Your task to perform on an android device: Go to Google maps Image 0: 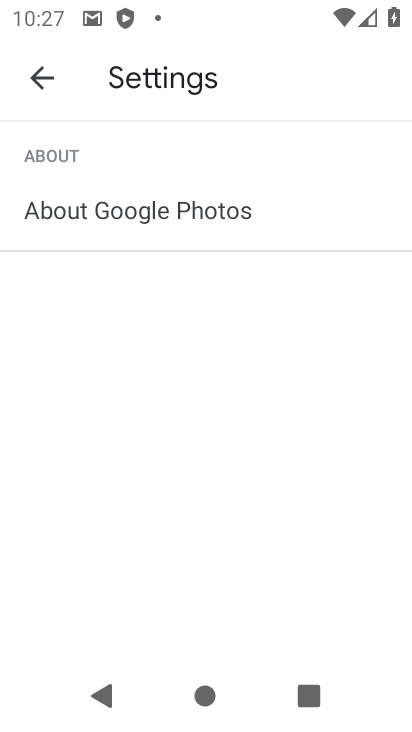
Step 0: press back button
Your task to perform on an android device: Go to Google maps Image 1: 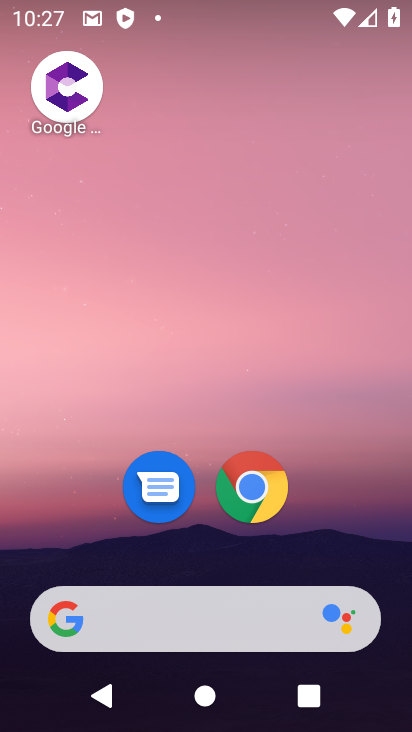
Step 1: drag from (204, 542) to (270, 36)
Your task to perform on an android device: Go to Google maps Image 2: 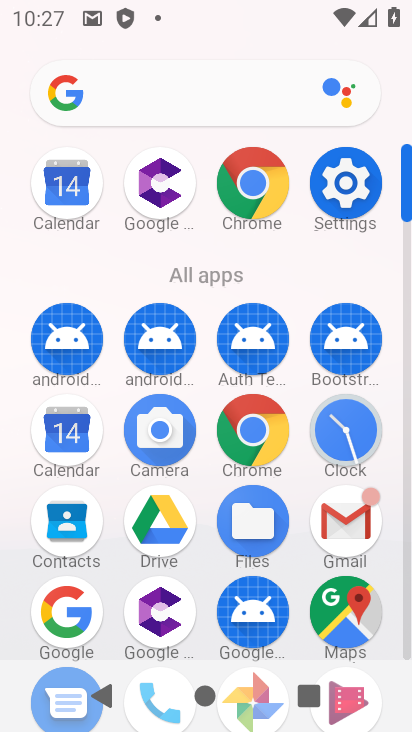
Step 2: click (348, 612)
Your task to perform on an android device: Go to Google maps Image 3: 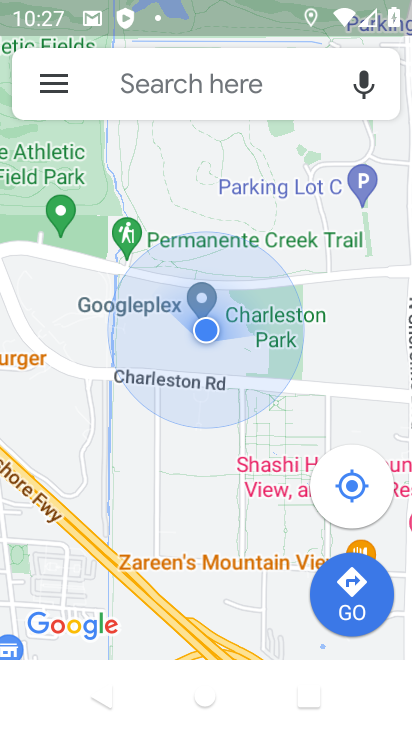
Step 3: task complete